Your task to perform on an android device: Open notification settings Image 0: 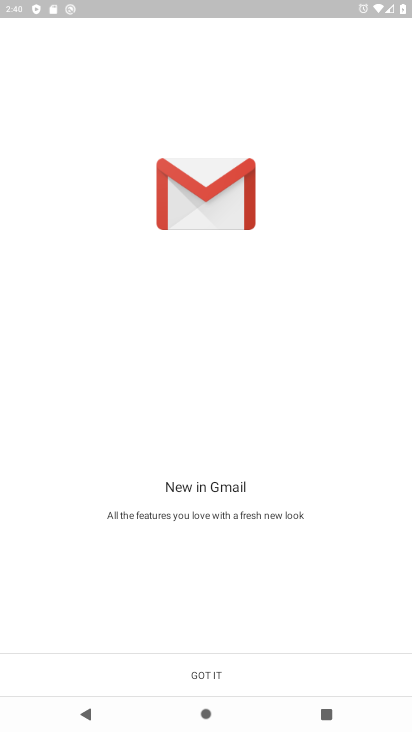
Step 0: press home button
Your task to perform on an android device: Open notification settings Image 1: 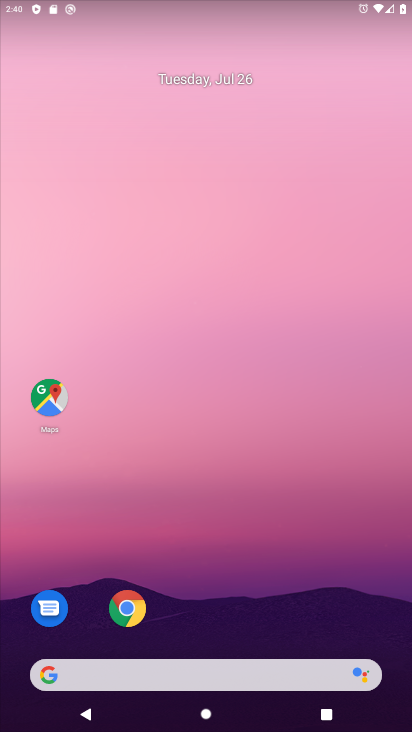
Step 1: drag from (241, 611) to (231, 78)
Your task to perform on an android device: Open notification settings Image 2: 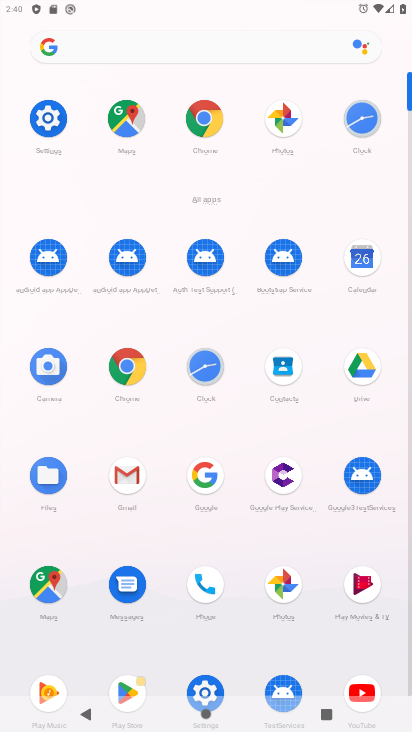
Step 2: click (48, 100)
Your task to perform on an android device: Open notification settings Image 3: 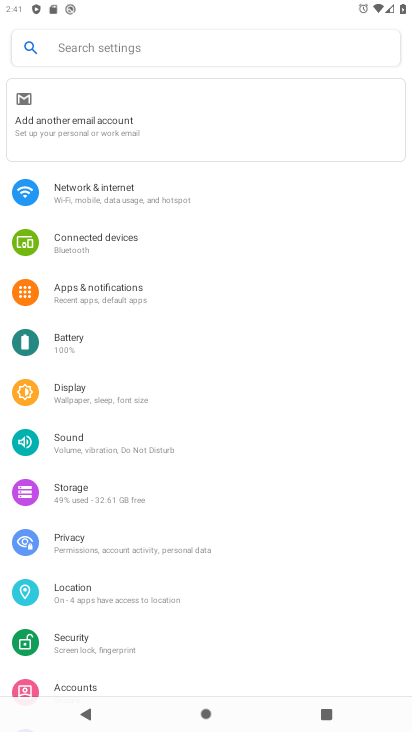
Step 3: click (128, 293)
Your task to perform on an android device: Open notification settings Image 4: 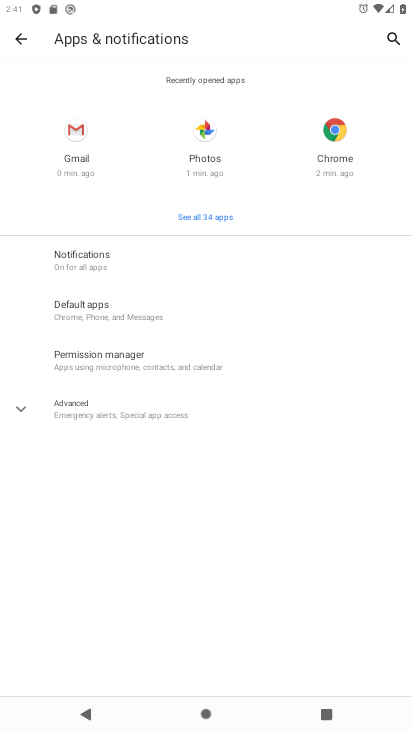
Step 4: click (132, 265)
Your task to perform on an android device: Open notification settings Image 5: 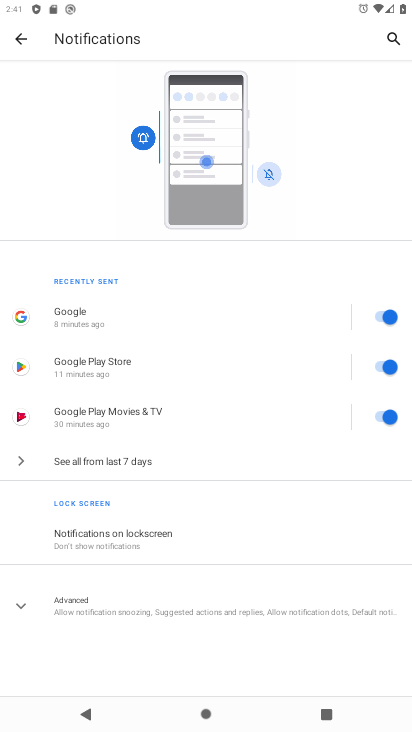
Step 5: task complete